Your task to perform on an android device: check data usage Image 0: 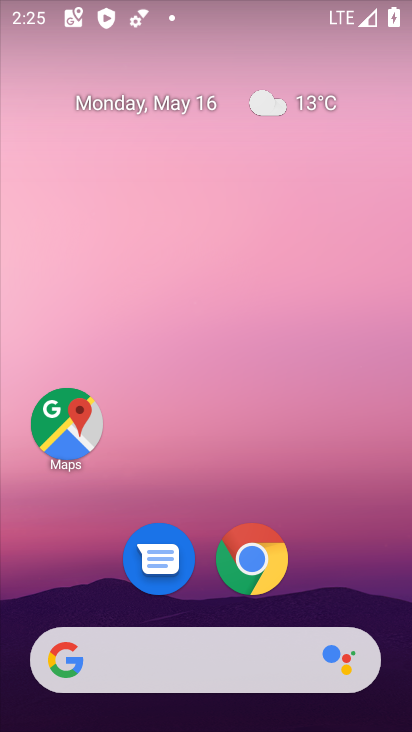
Step 0: drag from (211, 554) to (265, 113)
Your task to perform on an android device: check data usage Image 1: 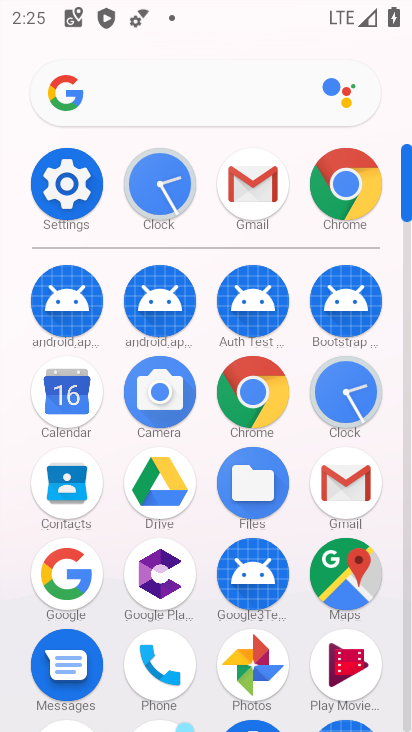
Step 1: click (48, 177)
Your task to perform on an android device: check data usage Image 2: 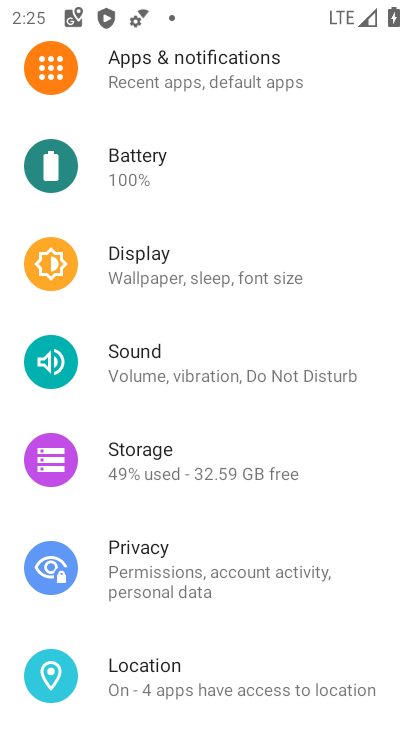
Step 2: drag from (250, 195) to (221, 715)
Your task to perform on an android device: check data usage Image 3: 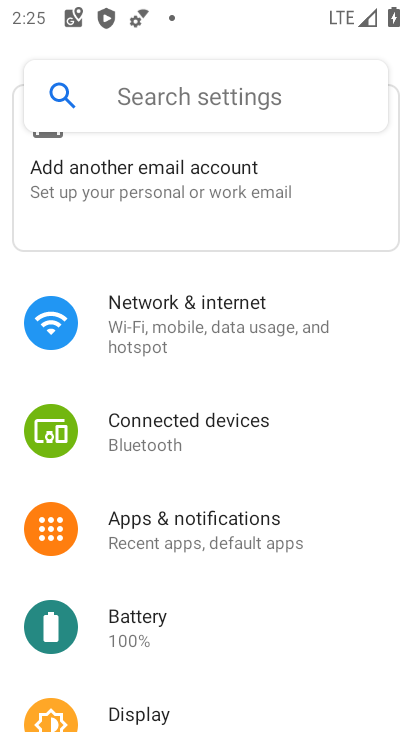
Step 3: click (182, 360)
Your task to perform on an android device: check data usage Image 4: 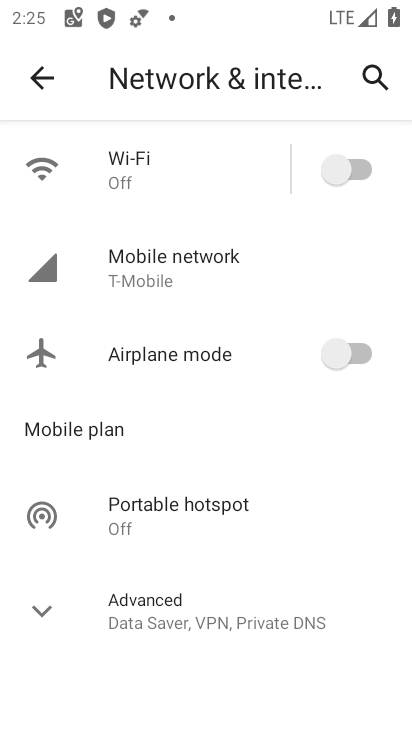
Step 4: click (149, 634)
Your task to perform on an android device: check data usage Image 5: 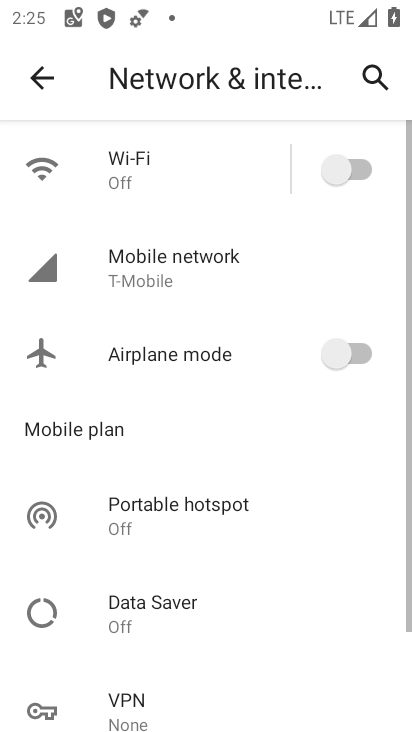
Step 5: click (147, 300)
Your task to perform on an android device: check data usage Image 6: 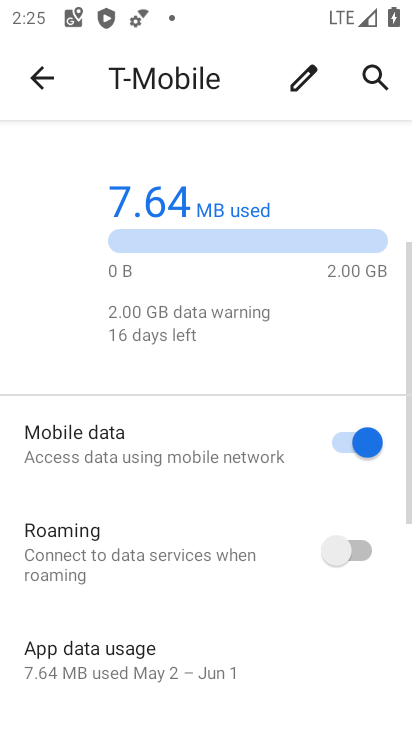
Step 6: click (107, 671)
Your task to perform on an android device: check data usage Image 7: 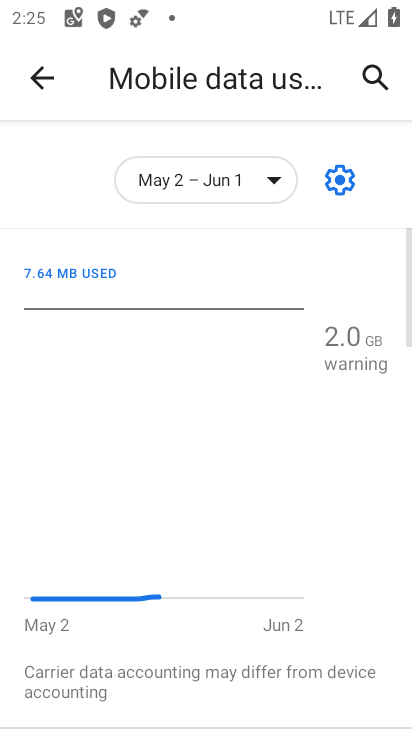
Step 7: task complete